Your task to perform on an android device: Is it going to rain today? Image 0: 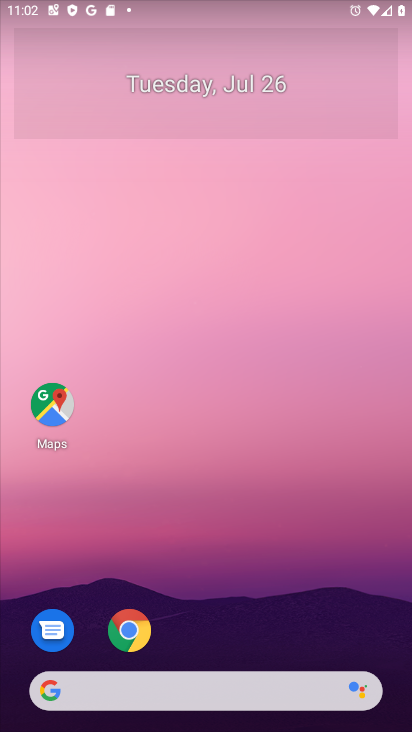
Step 0: click (155, 698)
Your task to perform on an android device: Is it going to rain today? Image 1: 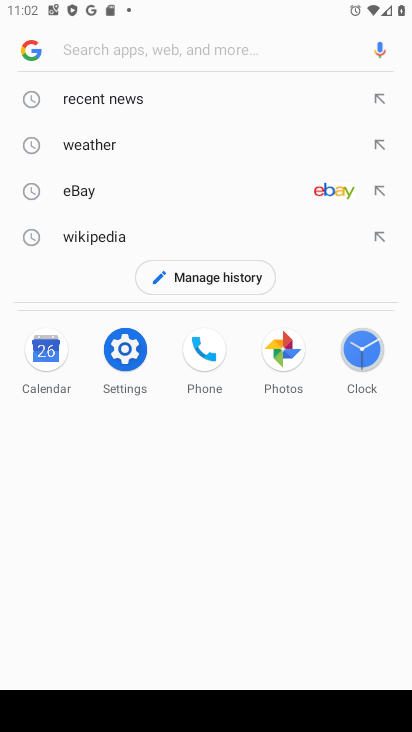
Step 1: type "Is it going to rain today?"
Your task to perform on an android device: Is it going to rain today? Image 2: 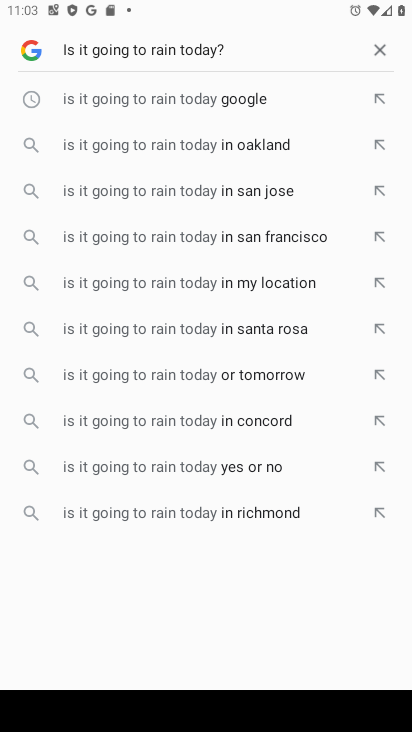
Step 2: press enter
Your task to perform on an android device: Is it going to rain today? Image 3: 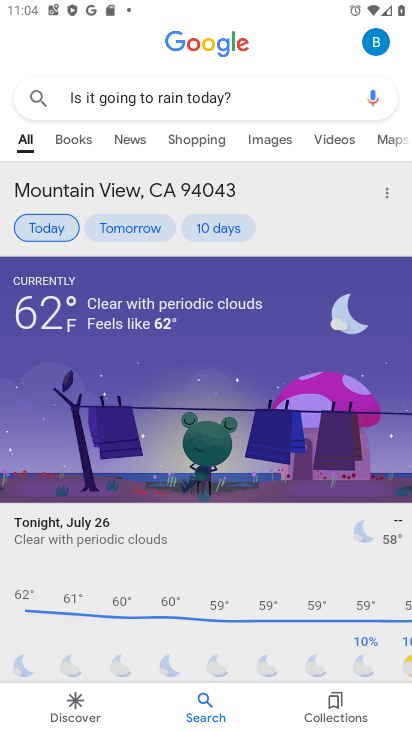
Step 3: task complete